Your task to perform on an android device: turn on priority inbox in the gmail app Image 0: 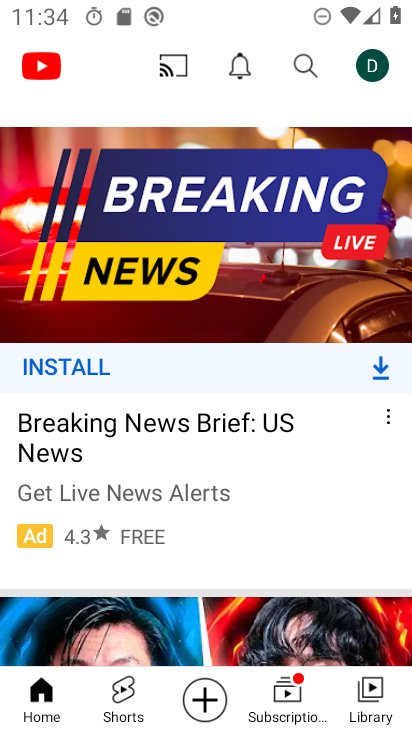
Step 0: drag from (203, 523) to (224, 285)
Your task to perform on an android device: turn on priority inbox in the gmail app Image 1: 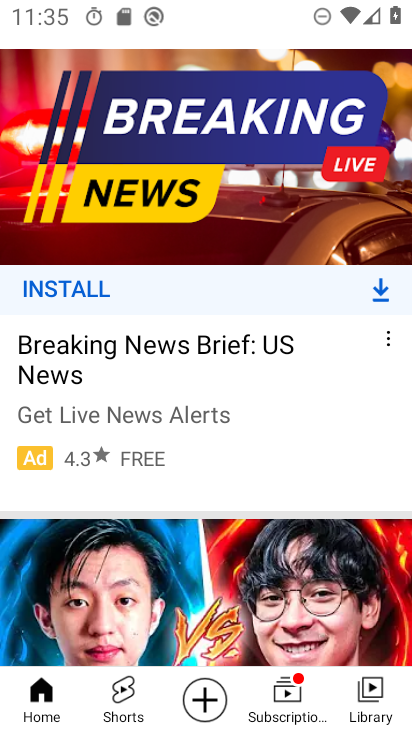
Step 1: press home button
Your task to perform on an android device: turn on priority inbox in the gmail app Image 2: 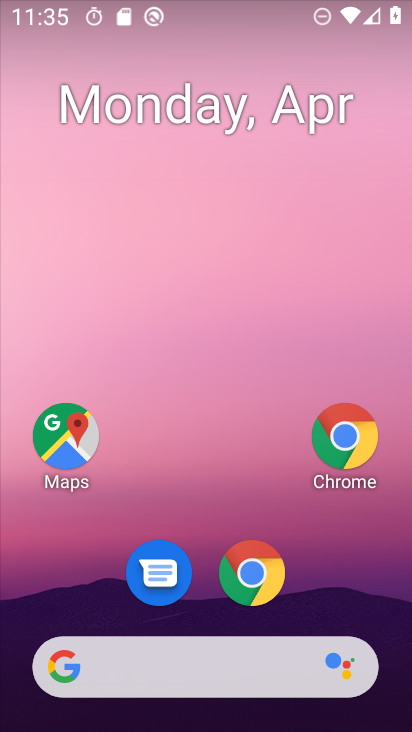
Step 2: drag from (361, 481) to (286, 25)
Your task to perform on an android device: turn on priority inbox in the gmail app Image 3: 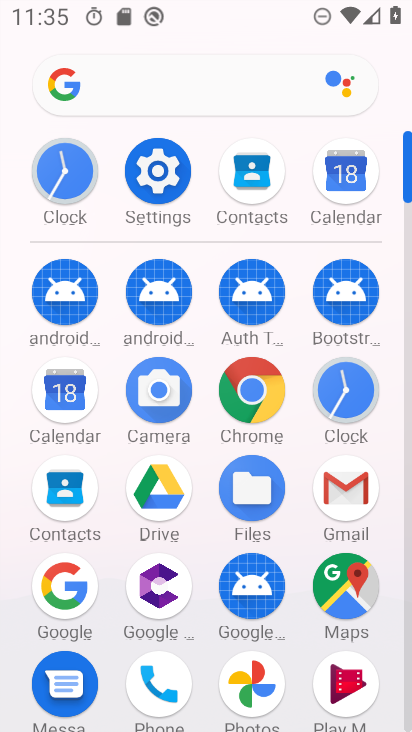
Step 3: click (347, 481)
Your task to perform on an android device: turn on priority inbox in the gmail app Image 4: 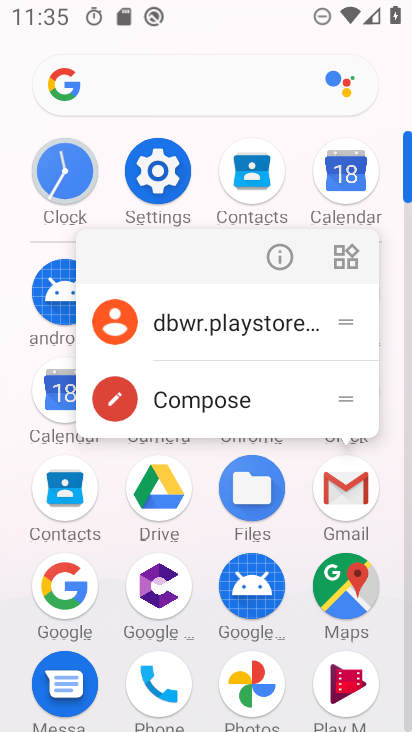
Step 4: click (360, 490)
Your task to perform on an android device: turn on priority inbox in the gmail app Image 5: 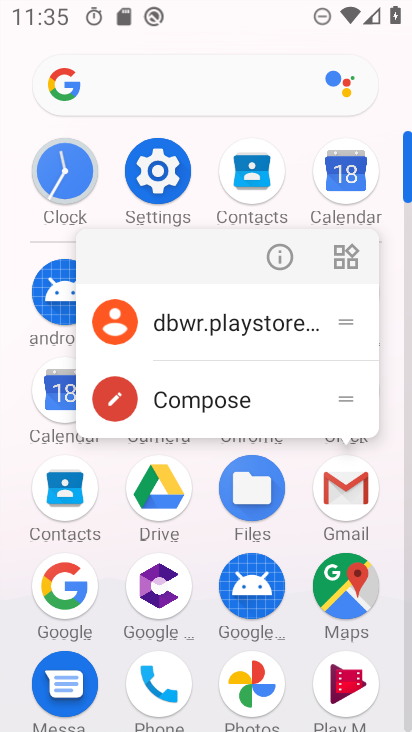
Step 5: click (357, 478)
Your task to perform on an android device: turn on priority inbox in the gmail app Image 6: 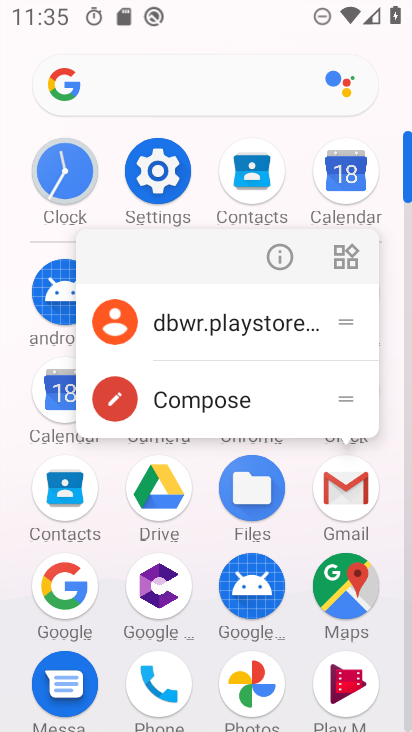
Step 6: click (357, 478)
Your task to perform on an android device: turn on priority inbox in the gmail app Image 7: 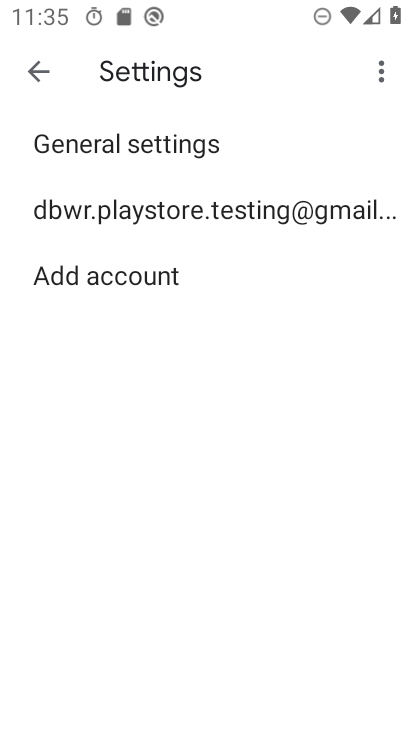
Step 7: click (199, 212)
Your task to perform on an android device: turn on priority inbox in the gmail app Image 8: 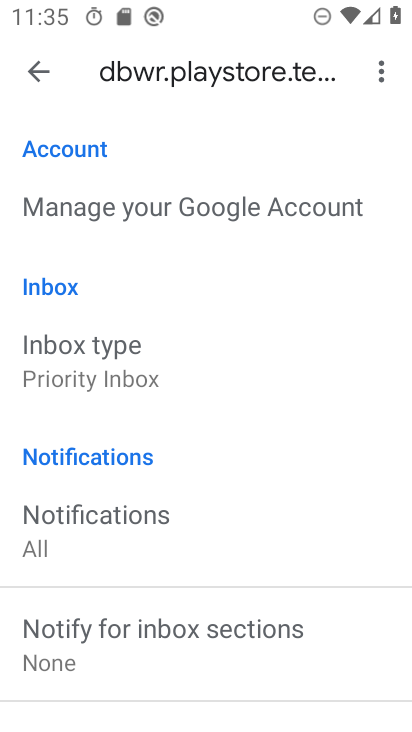
Step 8: drag from (271, 607) to (231, 263)
Your task to perform on an android device: turn on priority inbox in the gmail app Image 9: 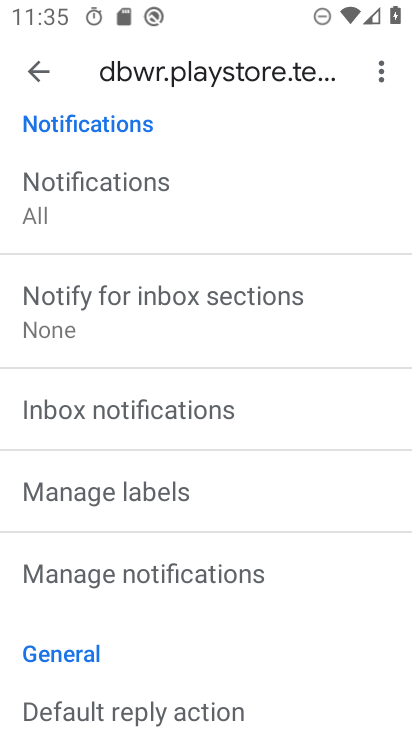
Step 9: drag from (226, 305) to (259, 562)
Your task to perform on an android device: turn on priority inbox in the gmail app Image 10: 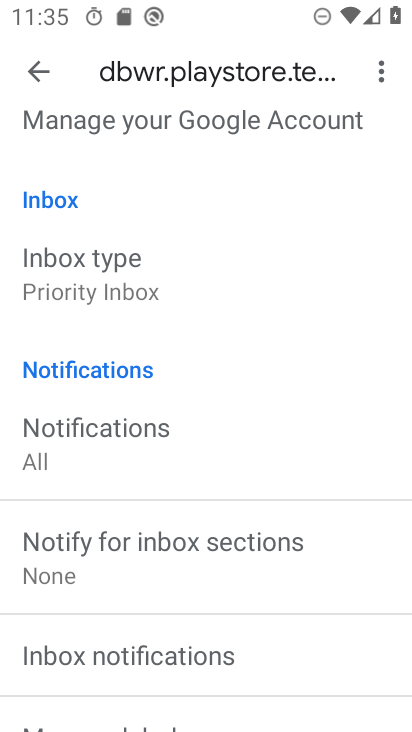
Step 10: click (116, 292)
Your task to perform on an android device: turn on priority inbox in the gmail app Image 11: 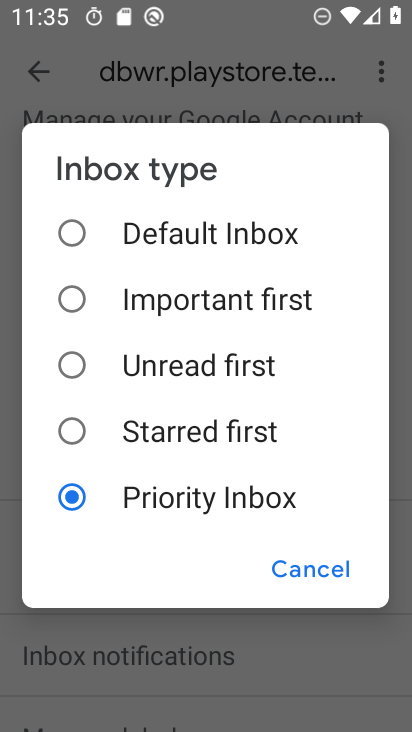
Step 11: task complete